Your task to perform on an android device: add a label to a message in the gmail app Image 0: 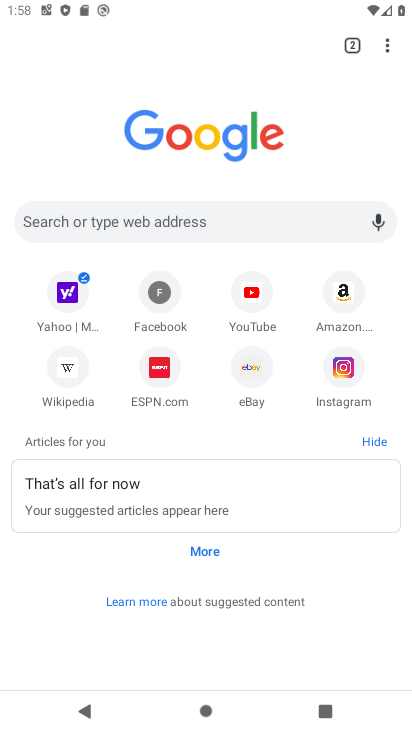
Step 0: press home button
Your task to perform on an android device: add a label to a message in the gmail app Image 1: 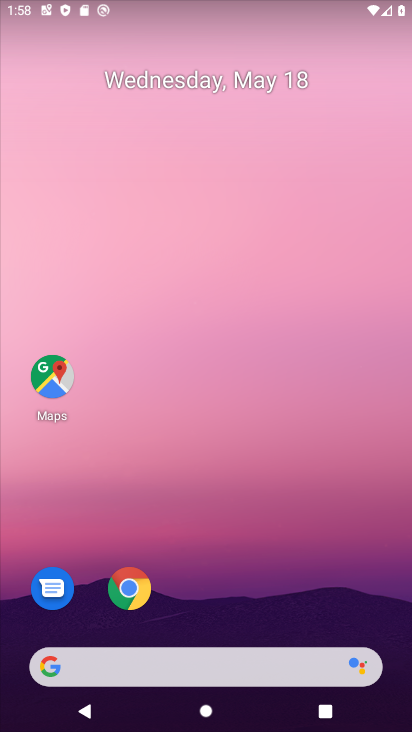
Step 1: drag from (354, 569) to (374, 135)
Your task to perform on an android device: add a label to a message in the gmail app Image 2: 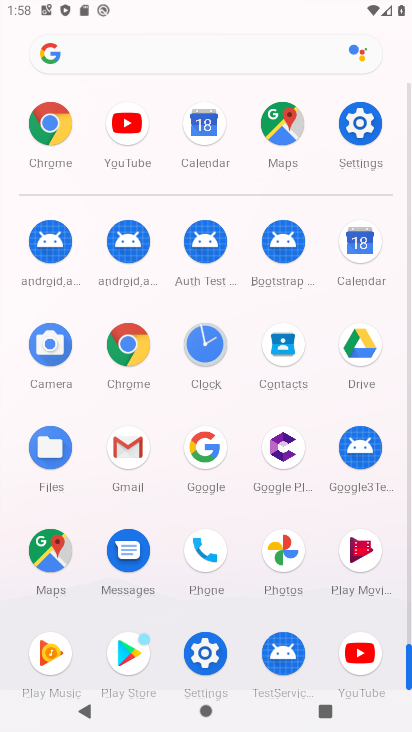
Step 2: click (124, 469)
Your task to perform on an android device: add a label to a message in the gmail app Image 3: 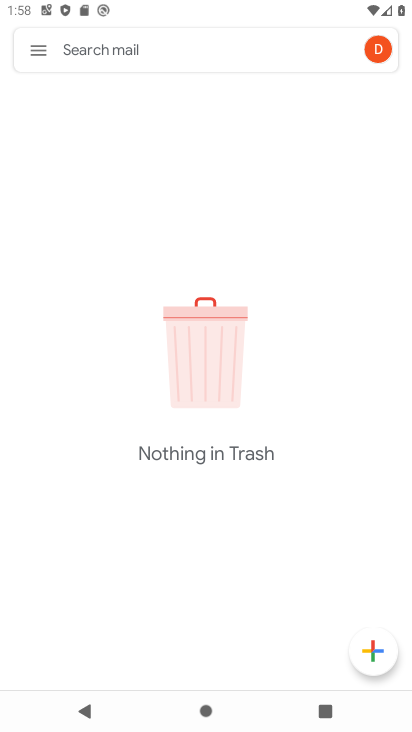
Step 3: click (39, 55)
Your task to perform on an android device: add a label to a message in the gmail app Image 4: 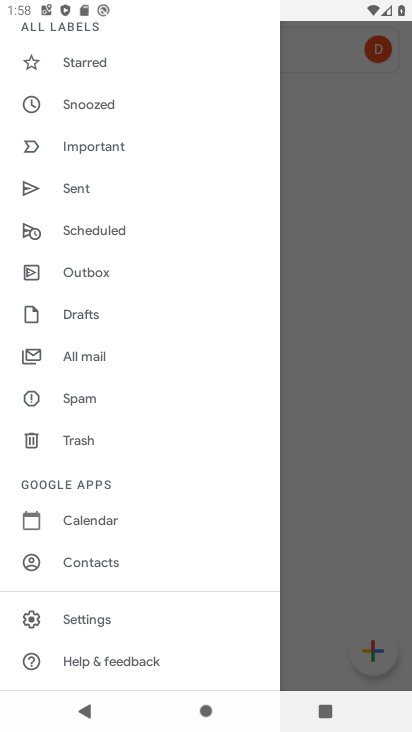
Step 4: drag from (186, 500) to (189, 368)
Your task to perform on an android device: add a label to a message in the gmail app Image 5: 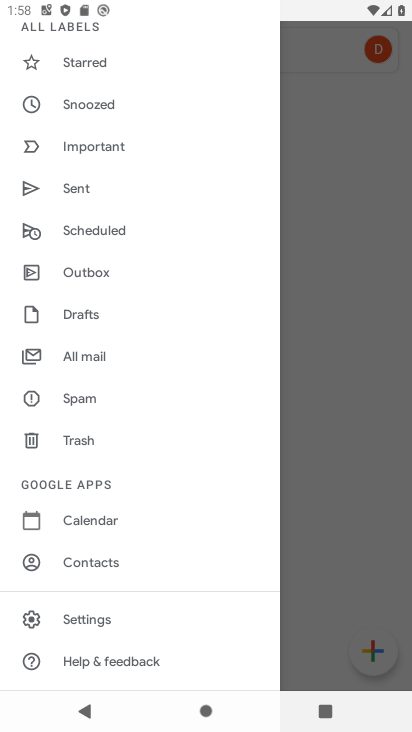
Step 5: drag from (192, 277) to (190, 453)
Your task to perform on an android device: add a label to a message in the gmail app Image 6: 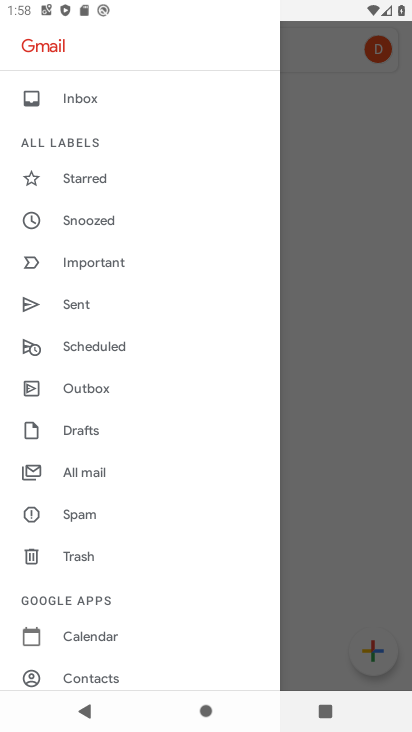
Step 6: drag from (201, 248) to (185, 442)
Your task to perform on an android device: add a label to a message in the gmail app Image 7: 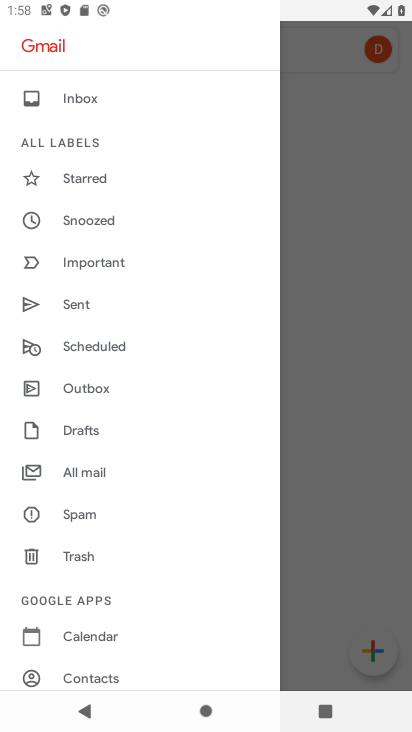
Step 7: click (105, 104)
Your task to perform on an android device: add a label to a message in the gmail app Image 8: 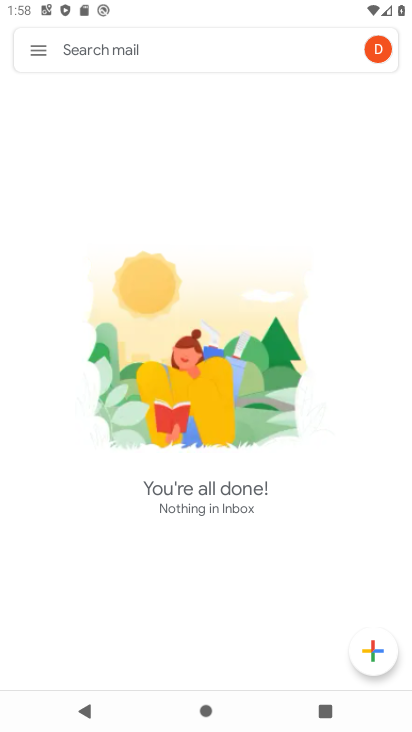
Step 8: task complete